Your task to perform on an android device: change text size in settings app Image 0: 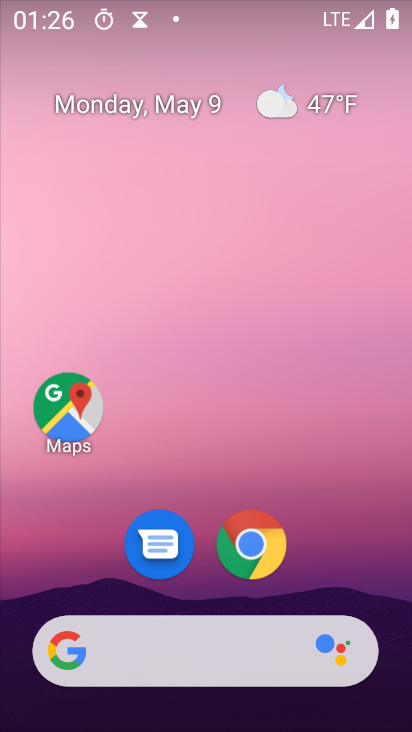
Step 0: drag from (284, 635) to (231, 0)
Your task to perform on an android device: change text size in settings app Image 1: 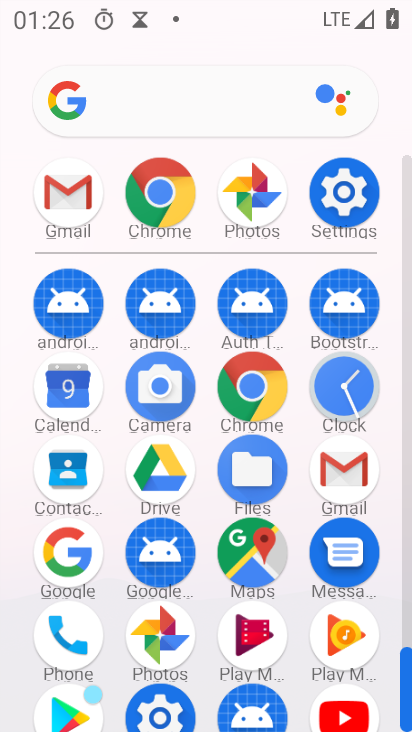
Step 1: click (354, 186)
Your task to perform on an android device: change text size in settings app Image 2: 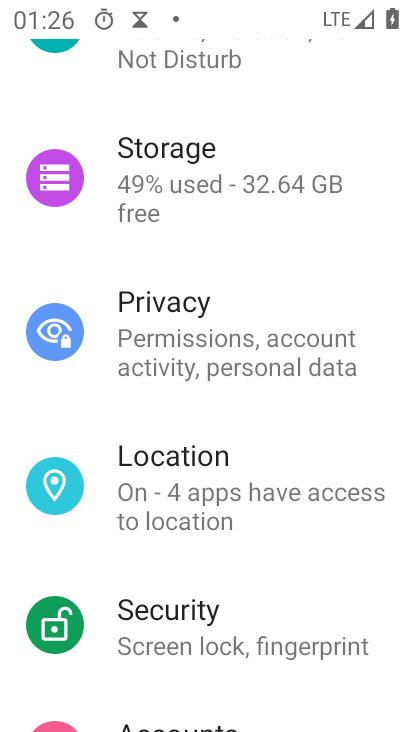
Step 2: drag from (235, 457) to (202, 70)
Your task to perform on an android device: change text size in settings app Image 3: 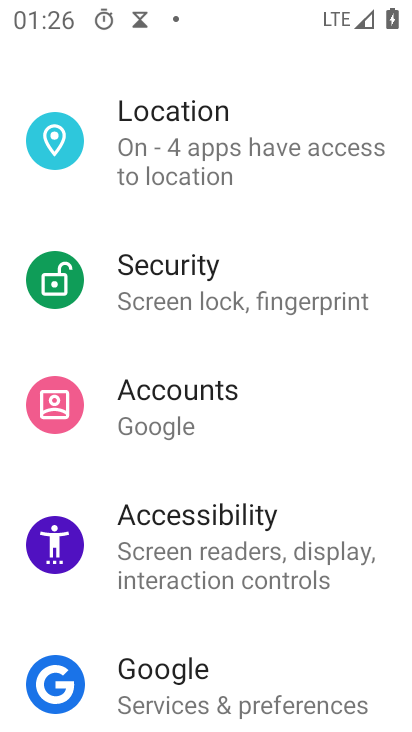
Step 3: click (249, 294)
Your task to perform on an android device: change text size in settings app Image 4: 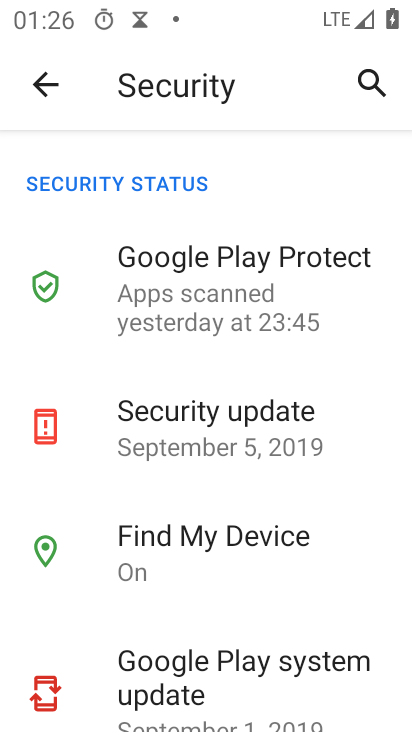
Step 4: press back button
Your task to perform on an android device: change text size in settings app Image 5: 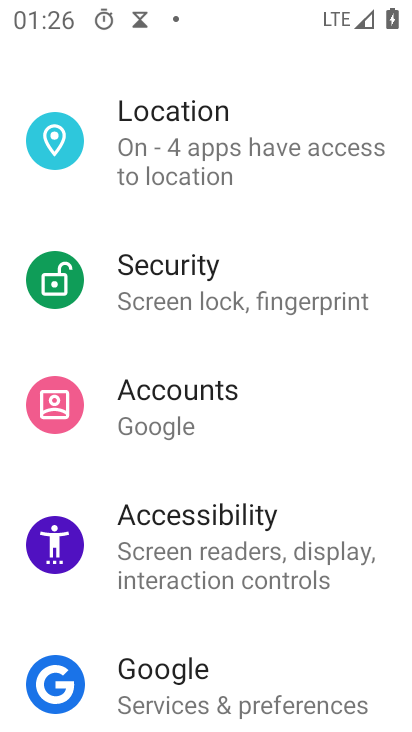
Step 5: drag from (247, 680) to (276, 216)
Your task to perform on an android device: change text size in settings app Image 6: 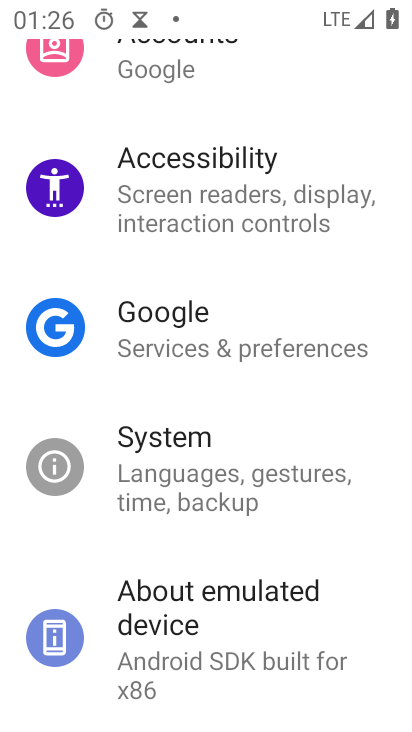
Step 6: click (219, 177)
Your task to perform on an android device: change text size in settings app Image 7: 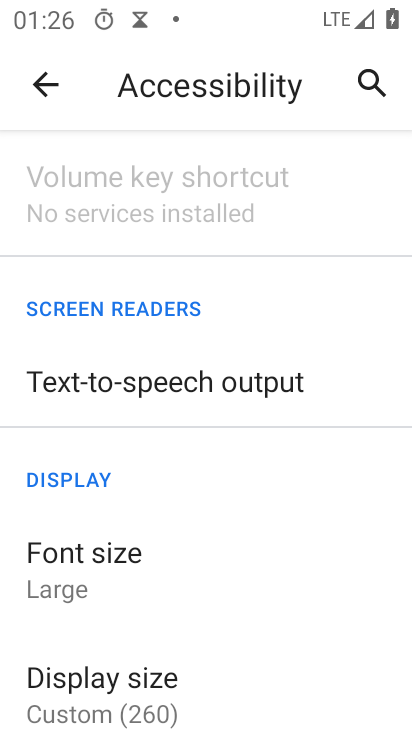
Step 7: click (158, 587)
Your task to perform on an android device: change text size in settings app Image 8: 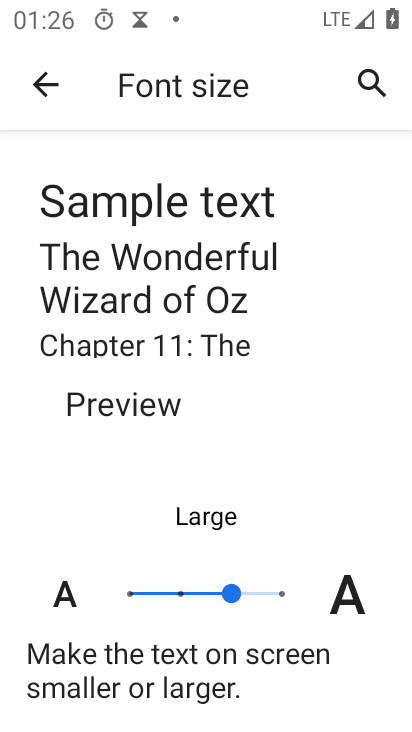
Step 8: click (173, 597)
Your task to perform on an android device: change text size in settings app Image 9: 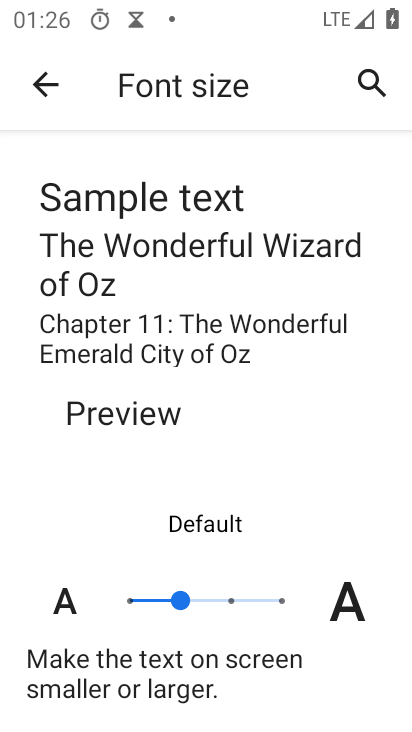
Step 9: task complete